Your task to perform on an android device: toggle improve location accuracy Image 0: 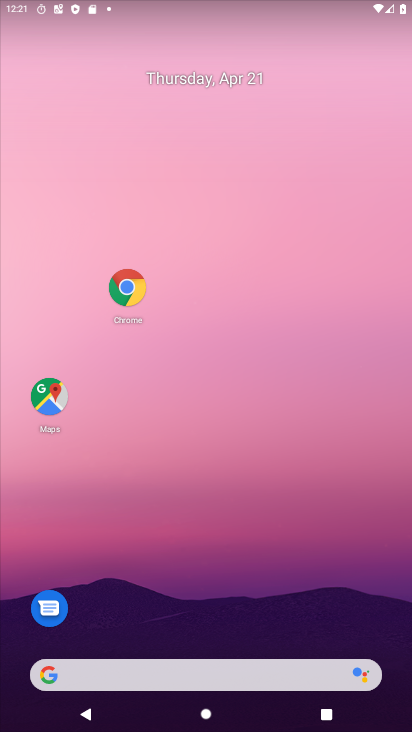
Step 0: drag from (222, 622) to (77, 163)
Your task to perform on an android device: toggle improve location accuracy Image 1: 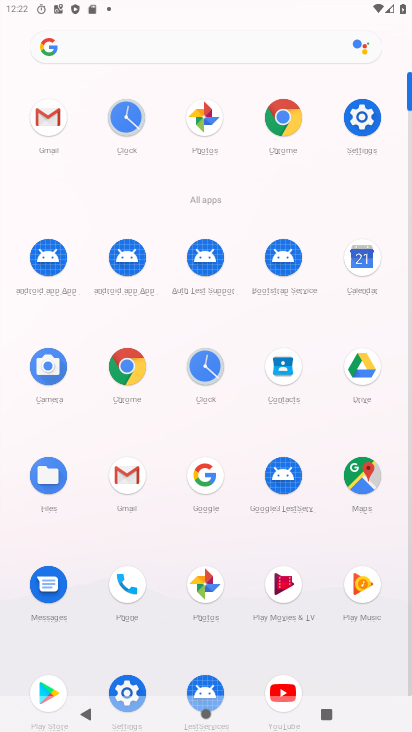
Step 1: click (360, 116)
Your task to perform on an android device: toggle improve location accuracy Image 2: 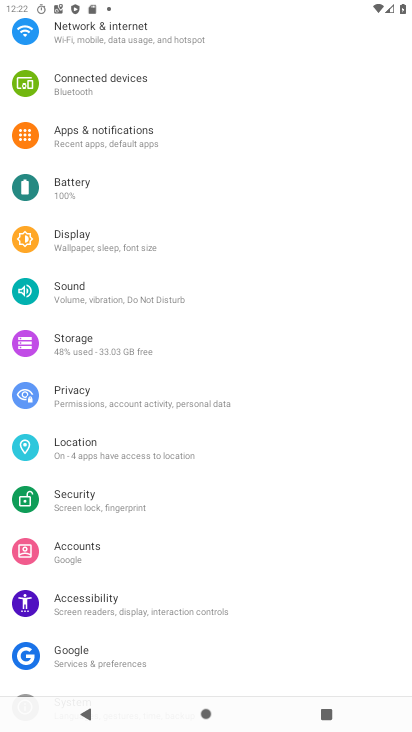
Step 2: click (66, 444)
Your task to perform on an android device: toggle improve location accuracy Image 3: 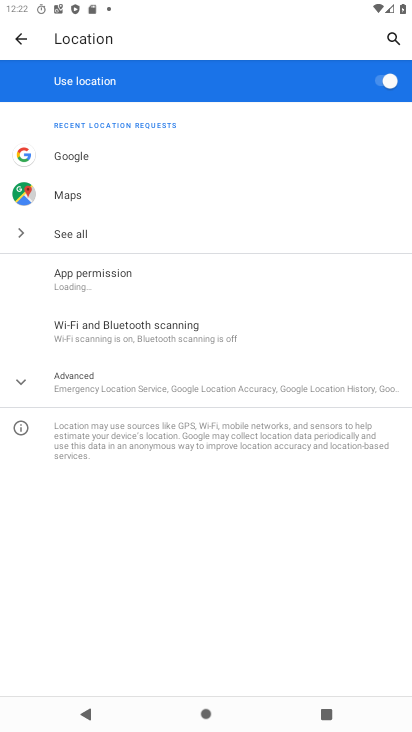
Step 3: click (82, 278)
Your task to perform on an android device: toggle improve location accuracy Image 4: 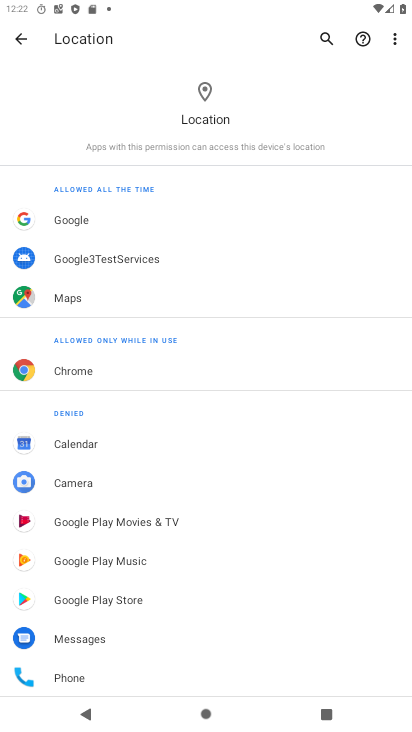
Step 4: drag from (161, 602) to (154, 212)
Your task to perform on an android device: toggle improve location accuracy Image 5: 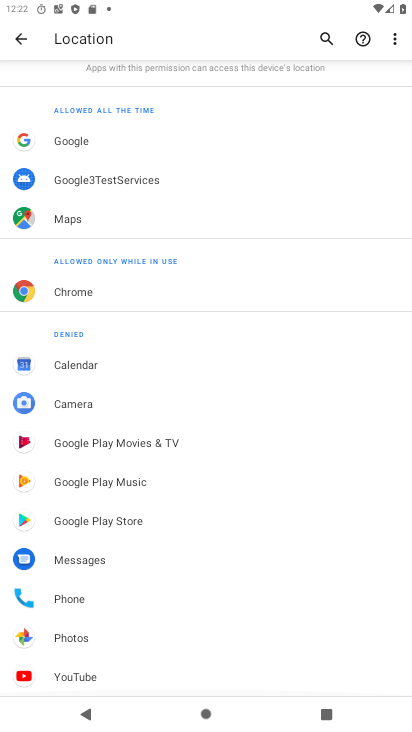
Step 5: drag from (172, 251) to (180, 160)
Your task to perform on an android device: toggle improve location accuracy Image 6: 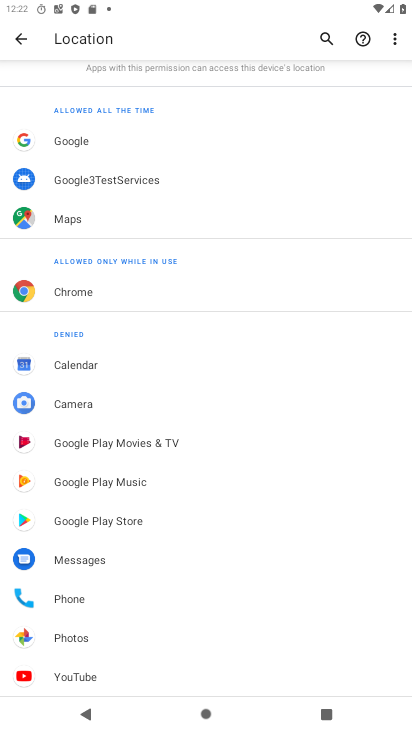
Step 6: press back button
Your task to perform on an android device: toggle improve location accuracy Image 7: 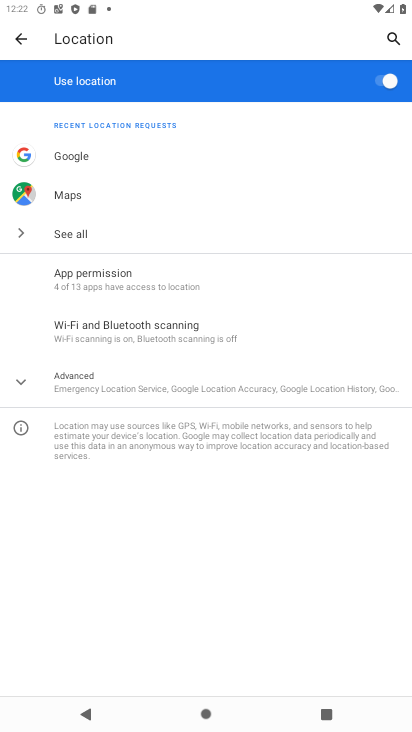
Step 7: click (149, 388)
Your task to perform on an android device: toggle improve location accuracy Image 8: 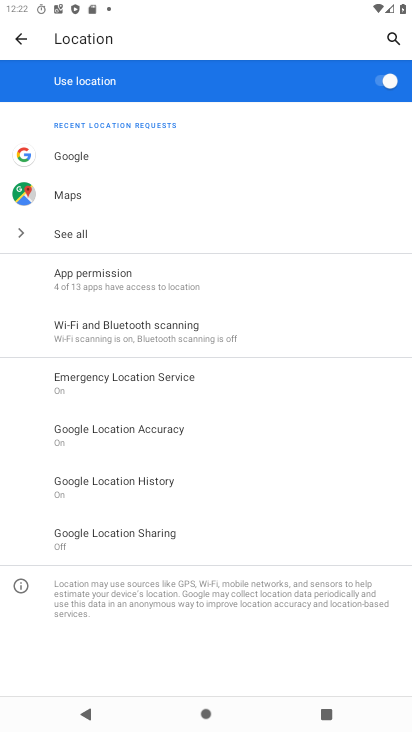
Step 8: click (115, 434)
Your task to perform on an android device: toggle improve location accuracy Image 9: 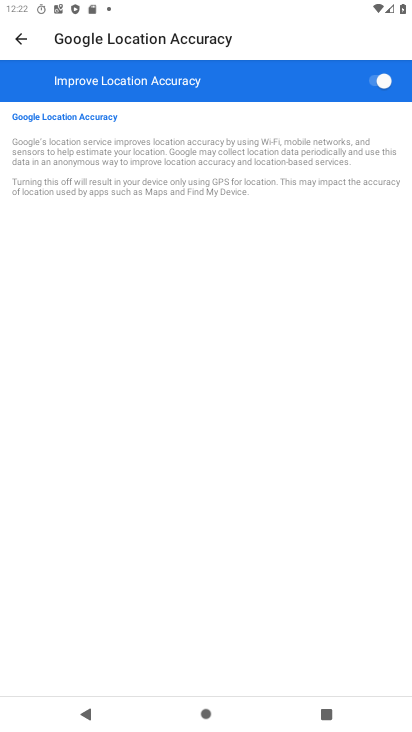
Step 9: click (384, 79)
Your task to perform on an android device: toggle improve location accuracy Image 10: 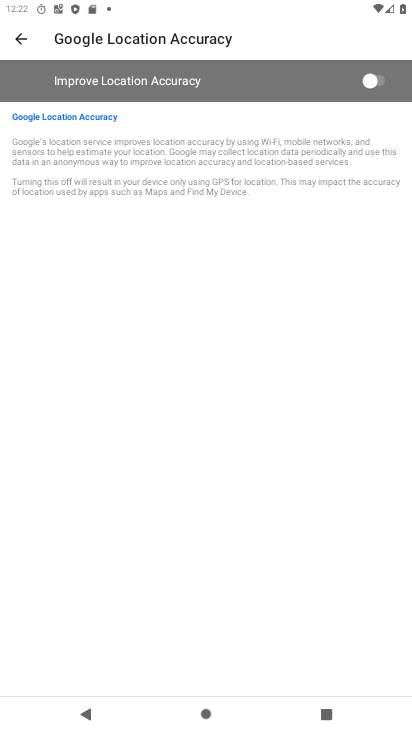
Step 10: task complete